Your task to perform on an android device: turn smart compose on in the gmail app Image 0: 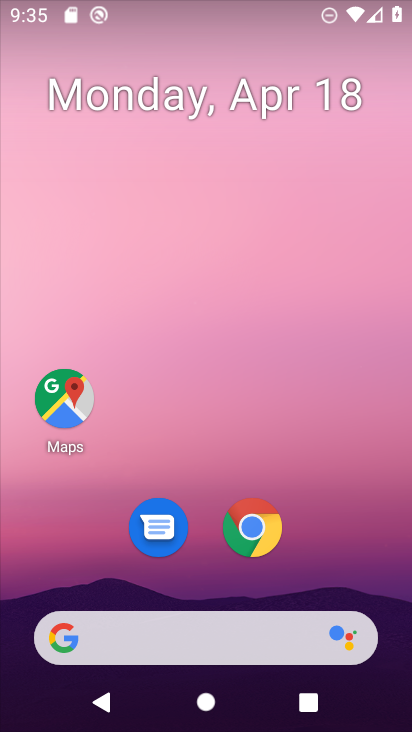
Step 0: drag from (393, 664) to (281, 18)
Your task to perform on an android device: turn smart compose on in the gmail app Image 1: 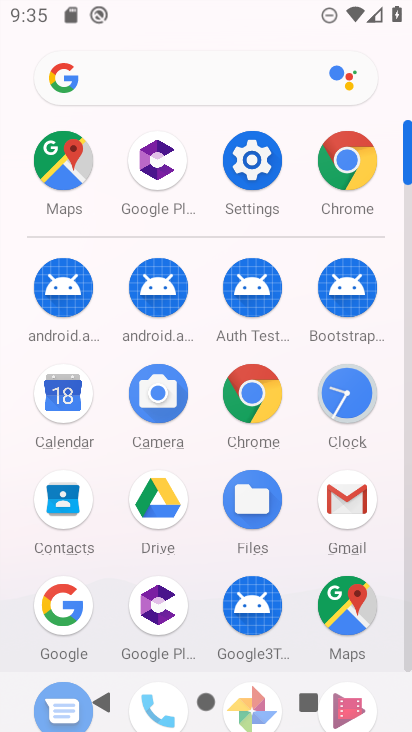
Step 1: click (345, 495)
Your task to perform on an android device: turn smart compose on in the gmail app Image 2: 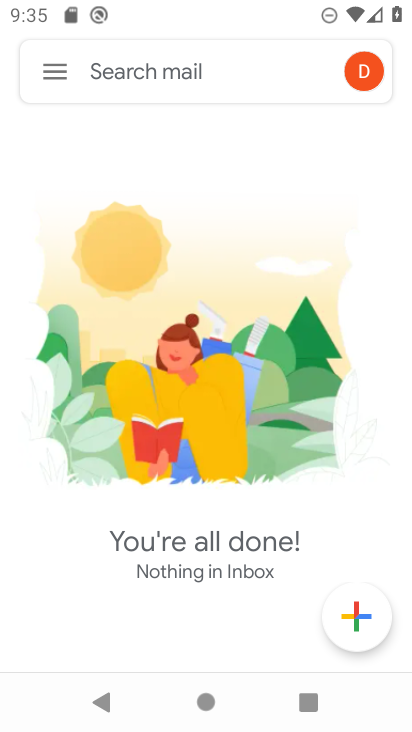
Step 2: click (34, 66)
Your task to perform on an android device: turn smart compose on in the gmail app Image 3: 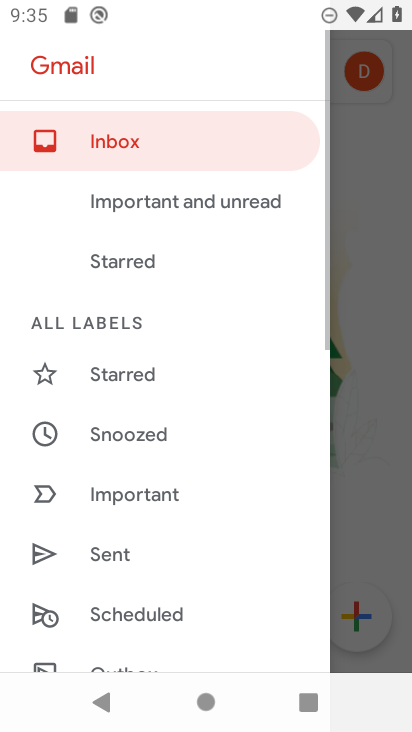
Step 3: drag from (201, 490) to (203, 209)
Your task to perform on an android device: turn smart compose on in the gmail app Image 4: 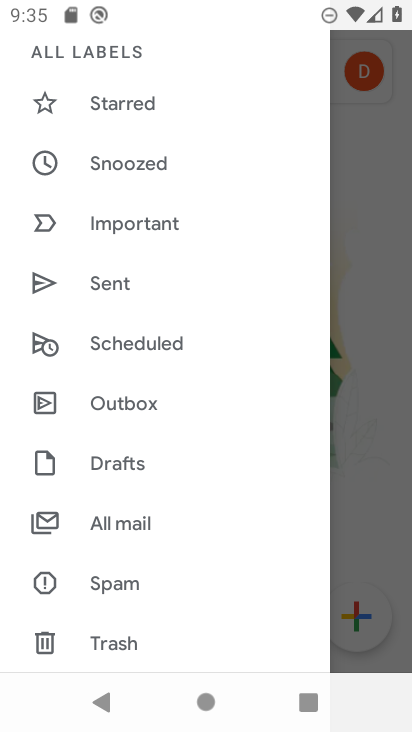
Step 4: drag from (170, 627) to (230, 295)
Your task to perform on an android device: turn smart compose on in the gmail app Image 5: 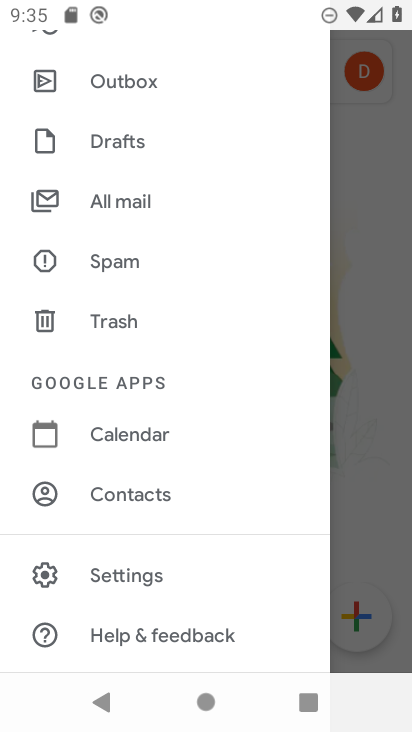
Step 5: click (188, 573)
Your task to perform on an android device: turn smart compose on in the gmail app Image 6: 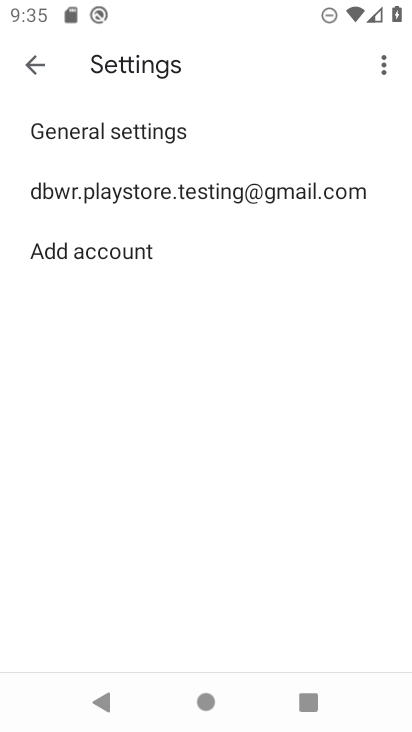
Step 6: click (133, 185)
Your task to perform on an android device: turn smart compose on in the gmail app Image 7: 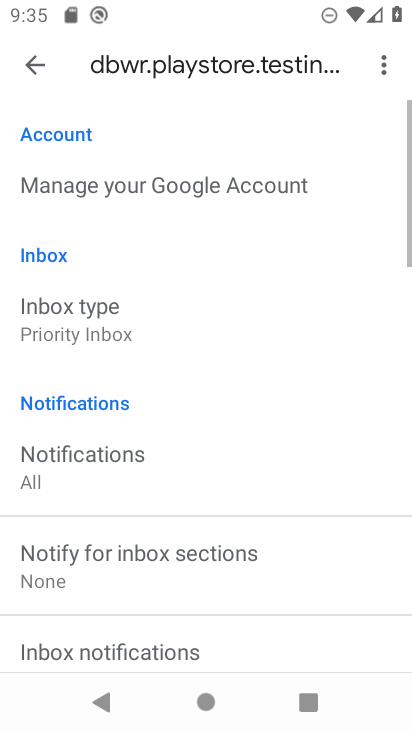
Step 7: drag from (175, 460) to (202, 123)
Your task to perform on an android device: turn smart compose on in the gmail app Image 8: 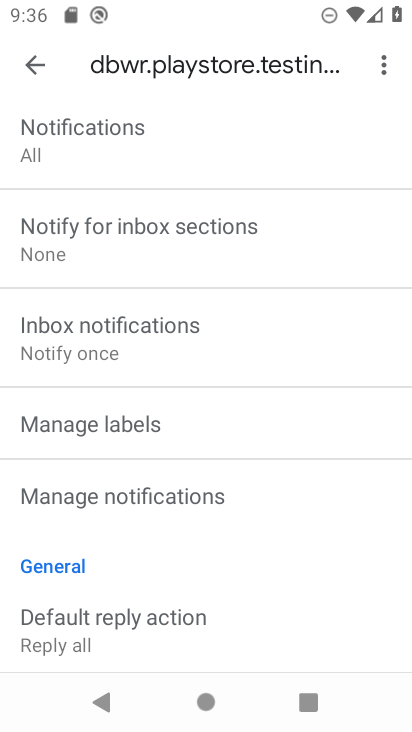
Step 8: click (196, 487)
Your task to perform on an android device: turn smart compose on in the gmail app Image 9: 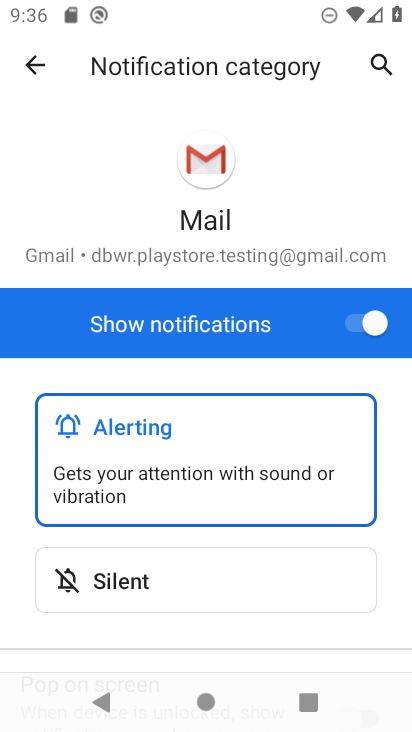
Step 9: click (25, 59)
Your task to perform on an android device: turn smart compose on in the gmail app Image 10: 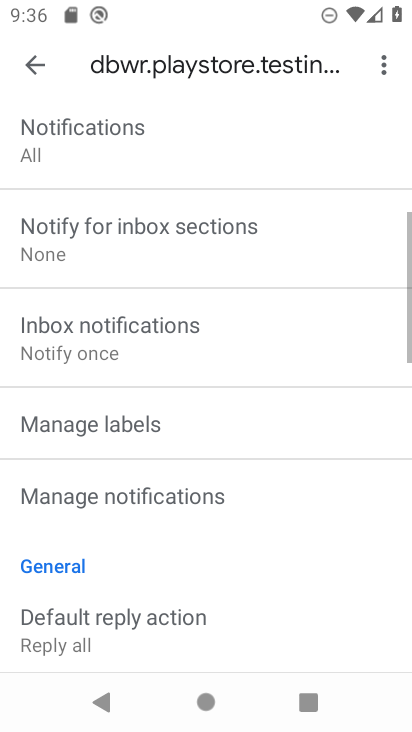
Step 10: task complete